Your task to perform on an android device: Go to network settings Image 0: 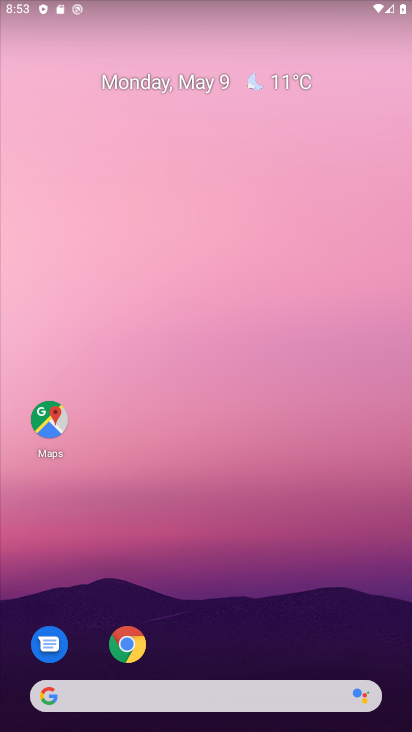
Step 0: drag from (264, 10) to (217, 15)
Your task to perform on an android device: Go to network settings Image 1: 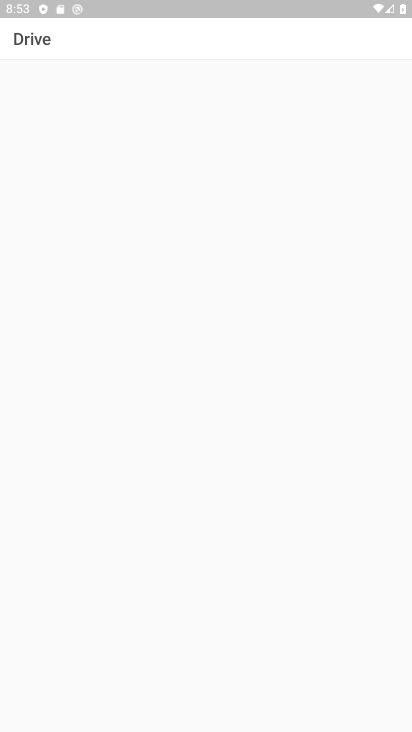
Step 1: press home button
Your task to perform on an android device: Go to network settings Image 2: 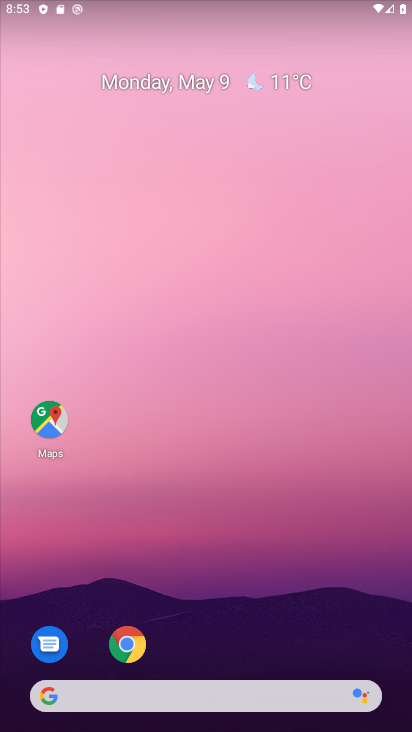
Step 2: drag from (201, 678) to (223, 21)
Your task to perform on an android device: Go to network settings Image 3: 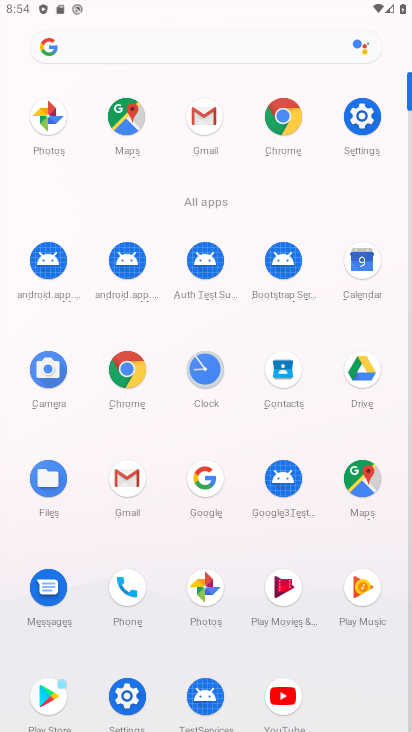
Step 3: click (356, 128)
Your task to perform on an android device: Go to network settings Image 4: 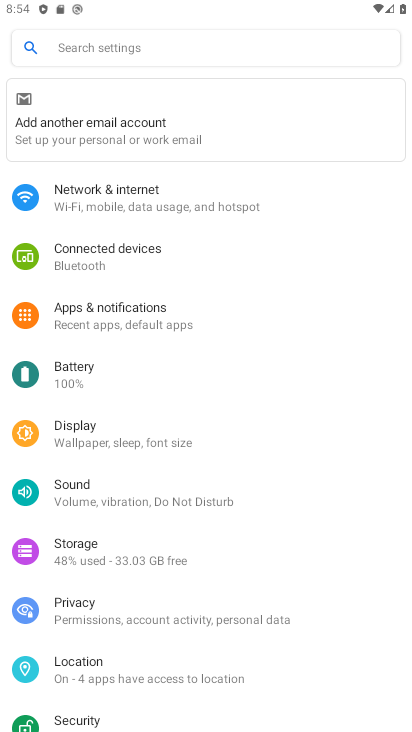
Step 4: click (160, 181)
Your task to perform on an android device: Go to network settings Image 5: 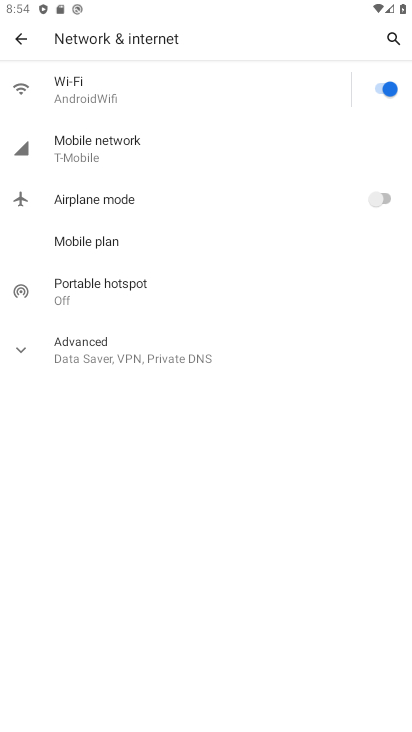
Step 5: click (88, 154)
Your task to perform on an android device: Go to network settings Image 6: 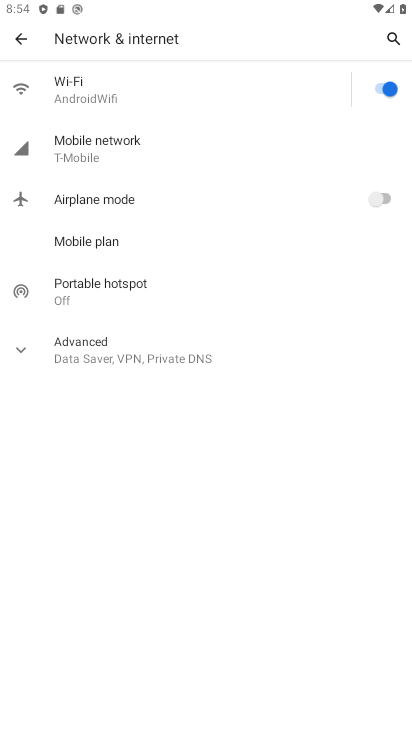
Step 6: task complete